Your task to perform on an android device: open a bookmark in the chrome app Image 0: 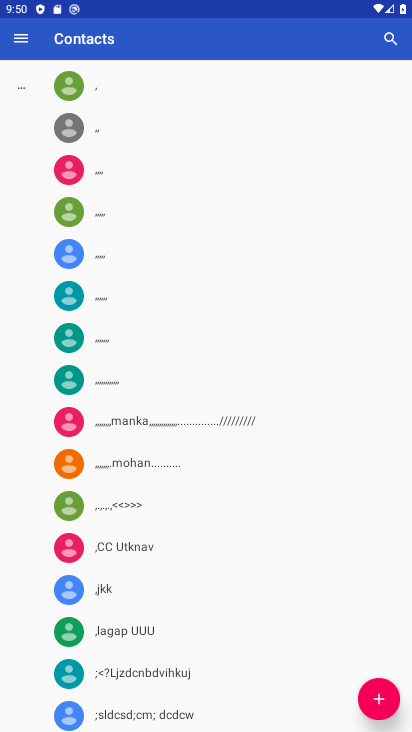
Step 0: press home button
Your task to perform on an android device: open a bookmark in the chrome app Image 1: 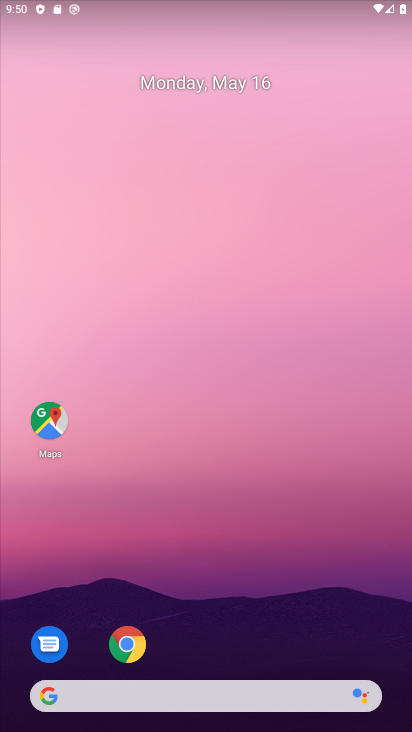
Step 1: click (134, 648)
Your task to perform on an android device: open a bookmark in the chrome app Image 2: 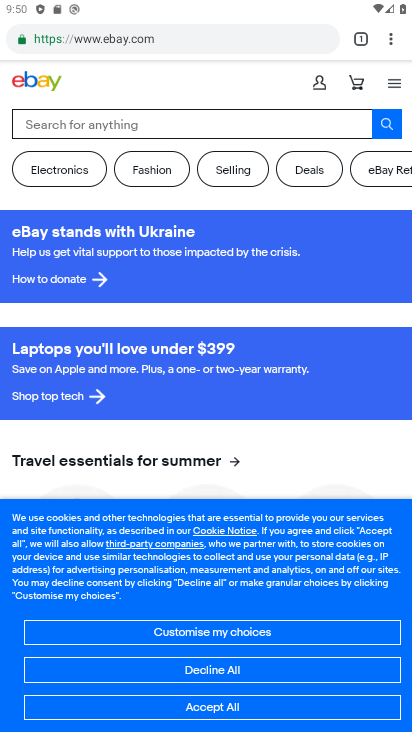
Step 2: click (389, 35)
Your task to perform on an android device: open a bookmark in the chrome app Image 3: 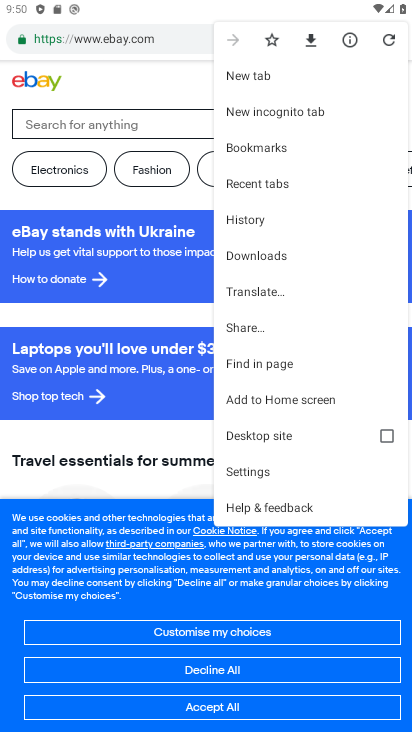
Step 3: click (278, 151)
Your task to perform on an android device: open a bookmark in the chrome app Image 4: 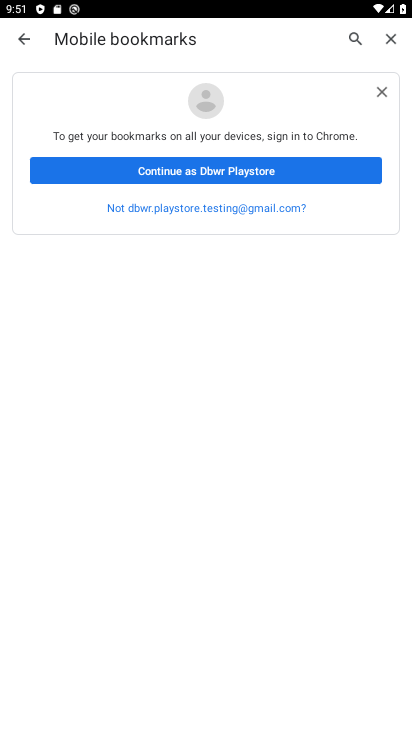
Step 4: task complete